Your task to perform on an android device: turn notification dots on Image 0: 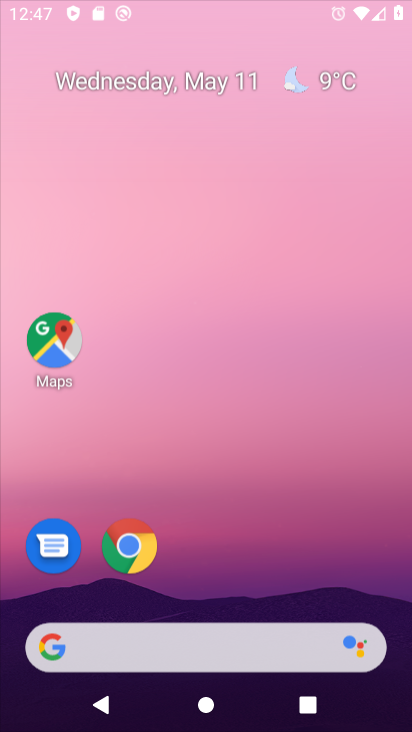
Step 0: click (292, 639)
Your task to perform on an android device: turn notification dots on Image 1: 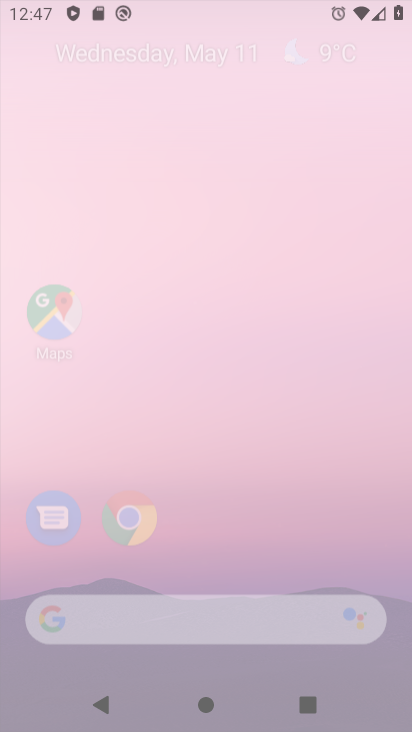
Step 1: drag from (228, 575) to (319, 63)
Your task to perform on an android device: turn notification dots on Image 2: 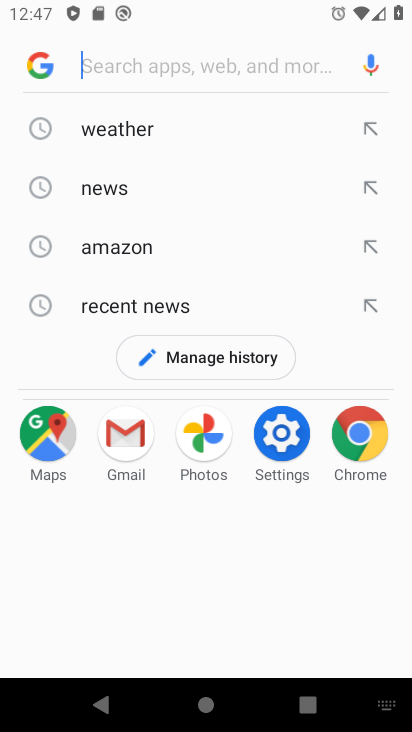
Step 2: press home button
Your task to perform on an android device: turn notification dots on Image 3: 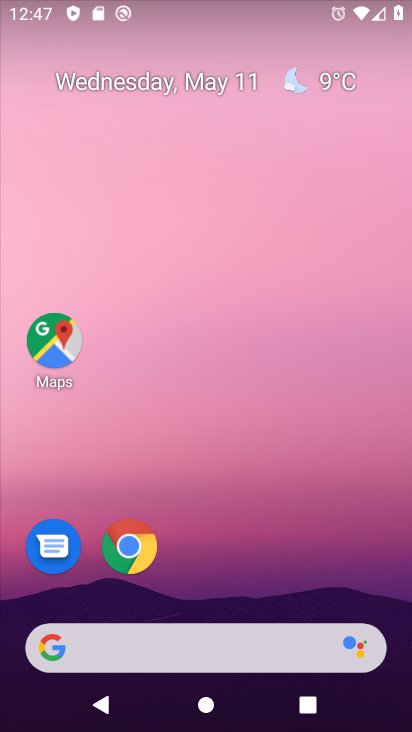
Step 3: drag from (193, 595) to (231, 98)
Your task to perform on an android device: turn notification dots on Image 4: 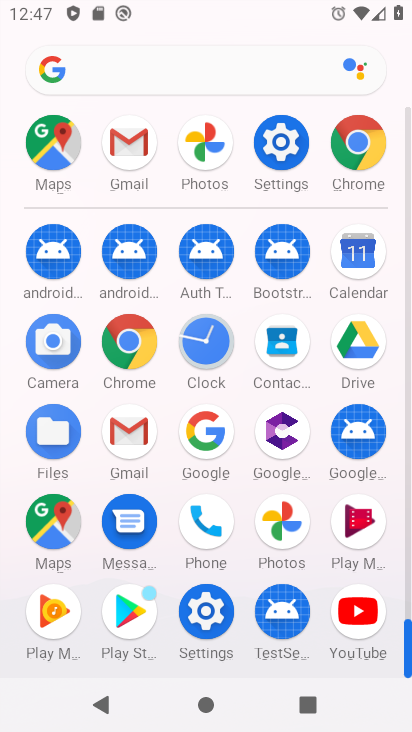
Step 4: click (275, 137)
Your task to perform on an android device: turn notification dots on Image 5: 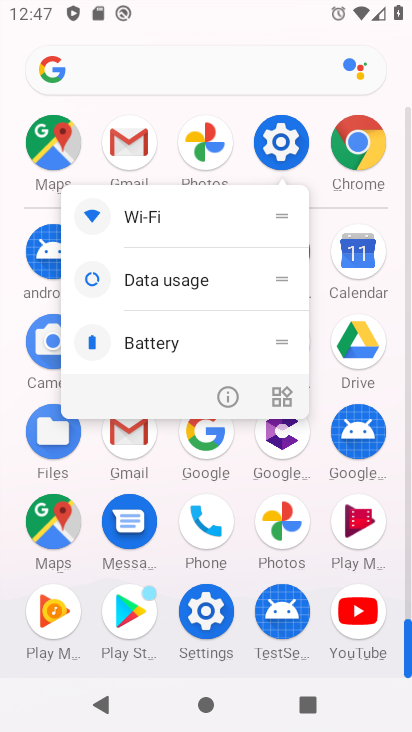
Step 5: click (237, 410)
Your task to perform on an android device: turn notification dots on Image 6: 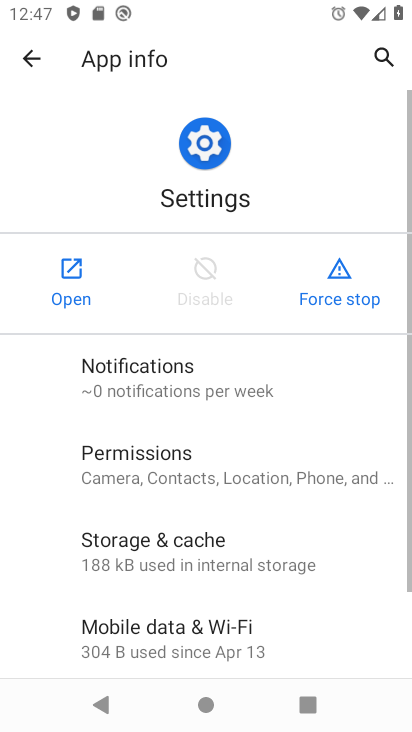
Step 6: click (73, 276)
Your task to perform on an android device: turn notification dots on Image 7: 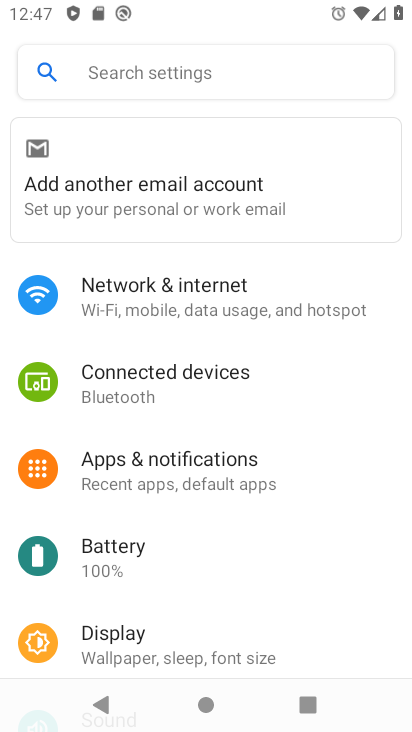
Step 7: click (204, 481)
Your task to perform on an android device: turn notification dots on Image 8: 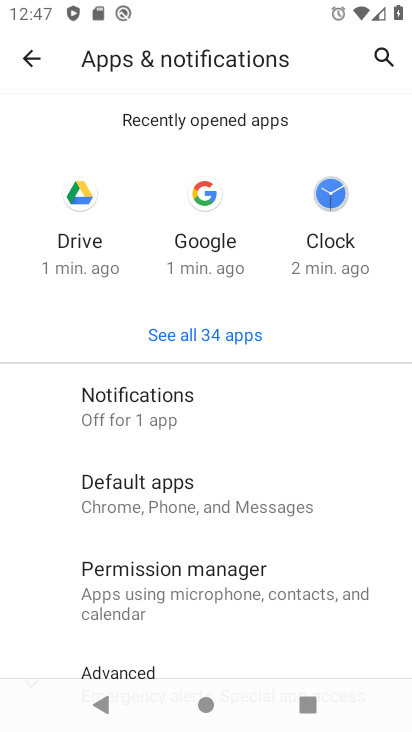
Step 8: click (173, 406)
Your task to perform on an android device: turn notification dots on Image 9: 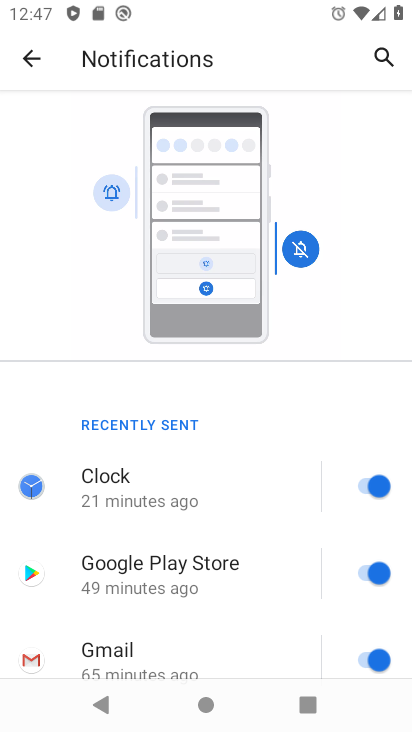
Step 9: drag from (205, 564) to (215, 149)
Your task to perform on an android device: turn notification dots on Image 10: 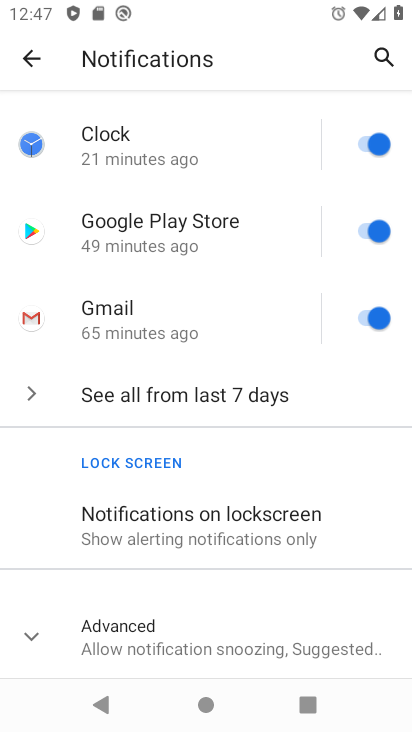
Step 10: click (122, 643)
Your task to perform on an android device: turn notification dots on Image 11: 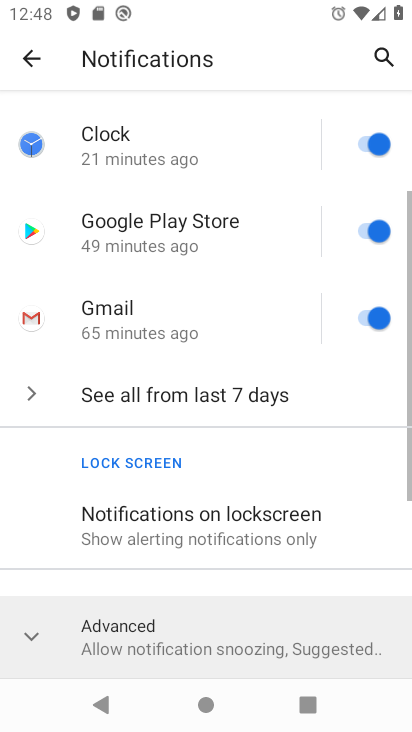
Step 11: task complete